Your task to perform on an android device: Open privacy settings Image 0: 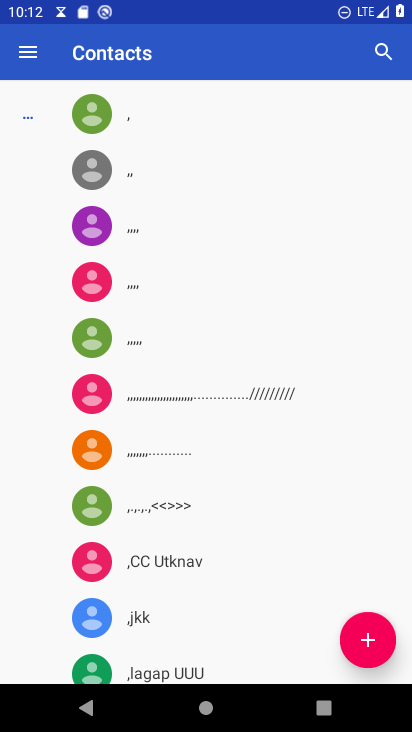
Step 0: press home button
Your task to perform on an android device: Open privacy settings Image 1: 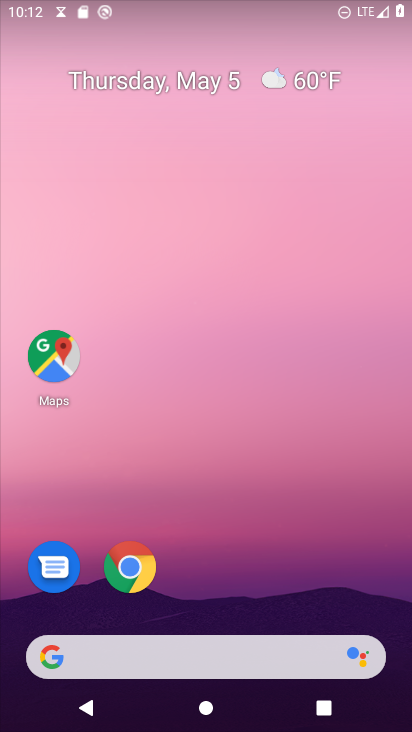
Step 1: drag from (180, 730) to (179, 227)
Your task to perform on an android device: Open privacy settings Image 2: 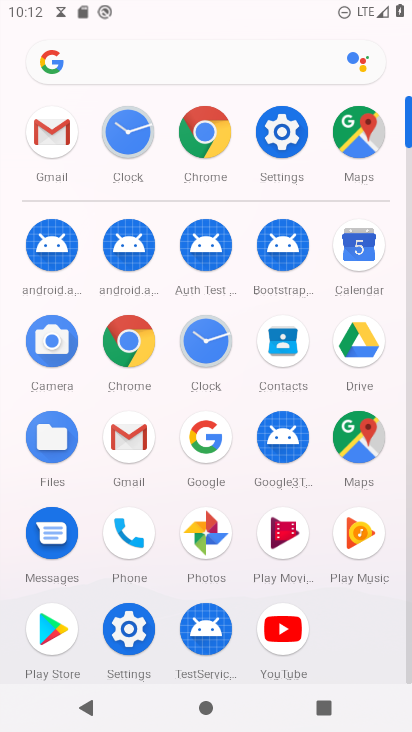
Step 2: click (281, 130)
Your task to perform on an android device: Open privacy settings Image 3: 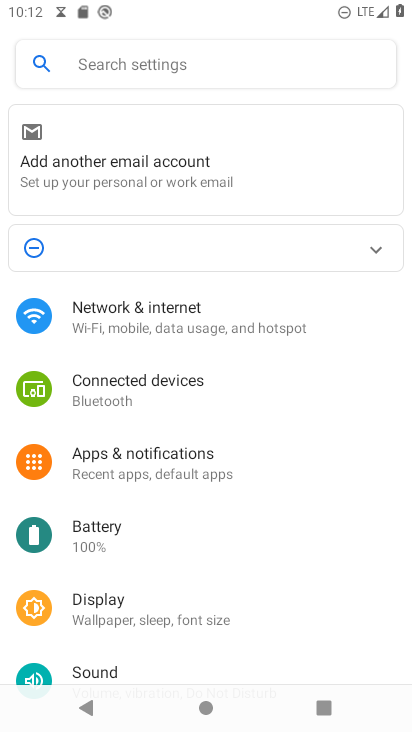
Step 3: drag from (128, 656) to (128, 324)
Your task to perform on an android device: Open privacy settings Image 4: 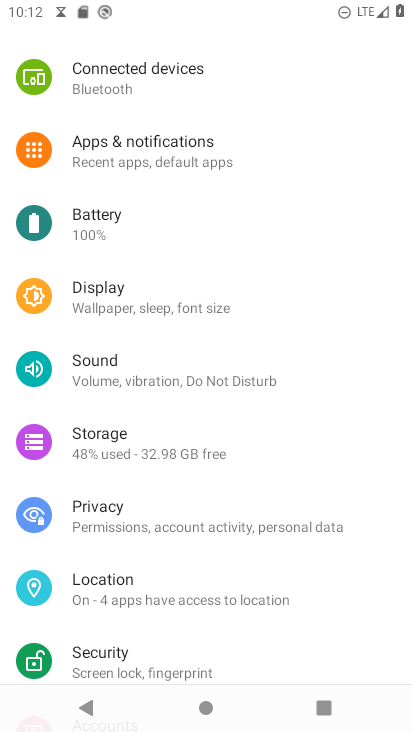
Step 4: click (119, 516)
Your task to perform on an android device: Open privacy settings Image 5: 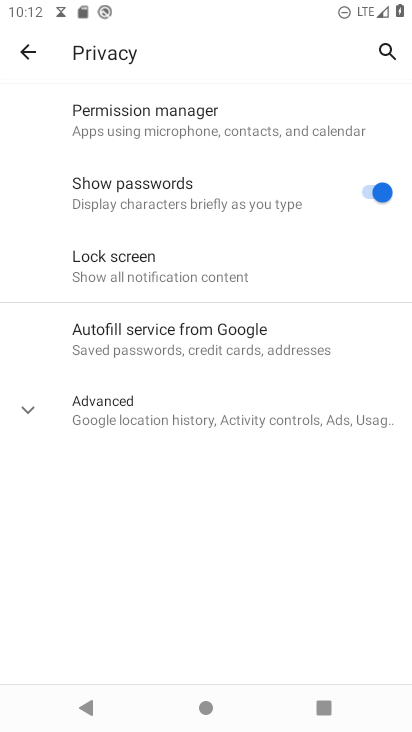
Step 5: task complete